Your task to perform on an android device: Go to battery settings Image 0: 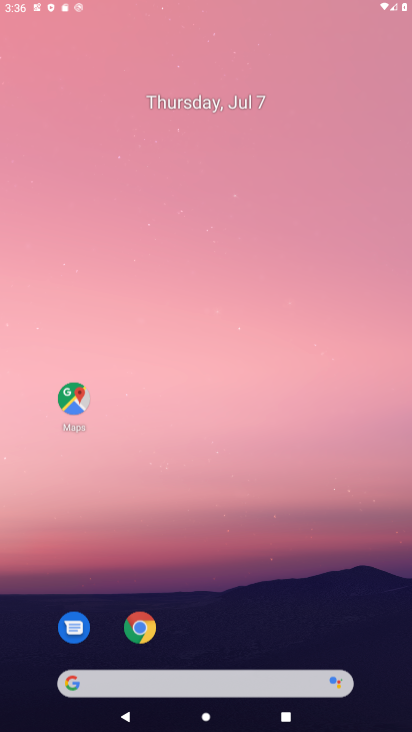
Step 0: click (290, 279)
Your task to perform on an android device: Go to battery settings Image 1: 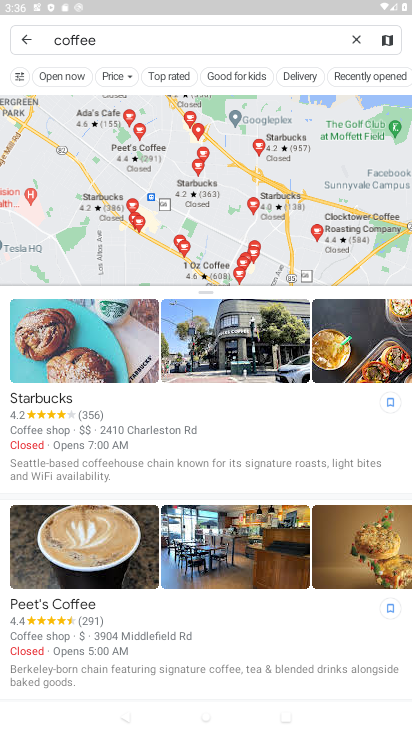
Step 1: press home button
Your task to perform on an android device: Go to battery settings Image 2: 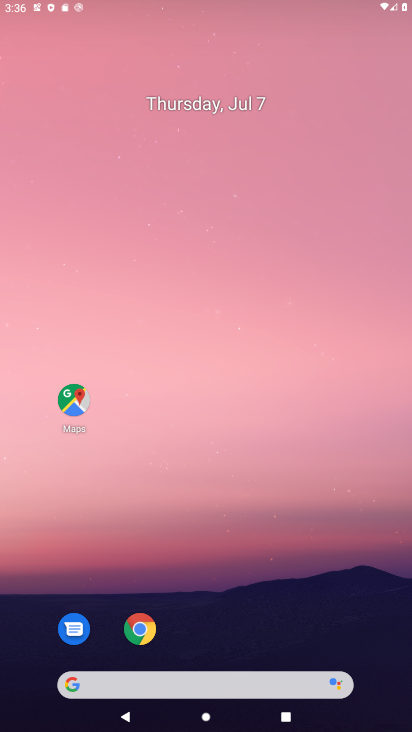
Step 2: drag from (289, 665) to (274, 270)
Your task to perform on an android device: Go to battery settings Image 3: 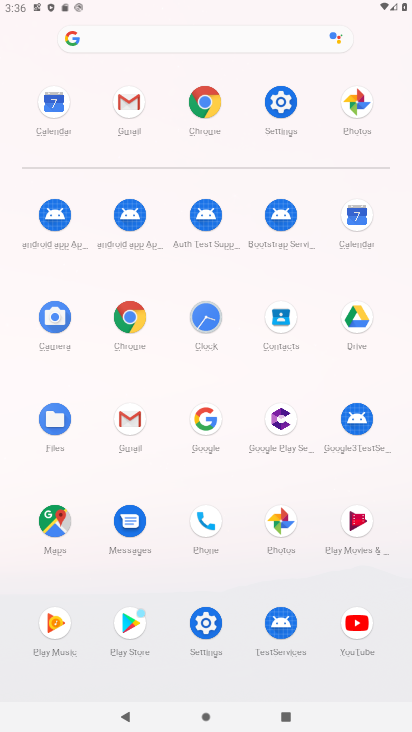
Step 3: click (270, 85)
Your task to perform on an android device: Go to battery settings Image 4: 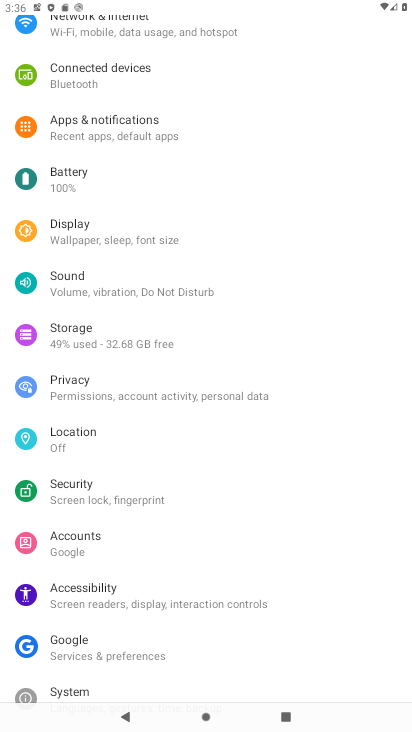
Step 4: click (81, 173)
Your task to perform on an android device: Go to battery settings Image 5: 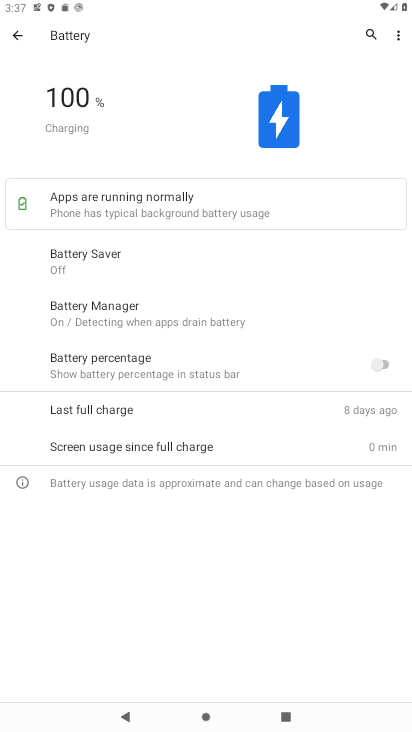
Step 5: task complete